Your task to perform on an android device: check out phone information Image 0: 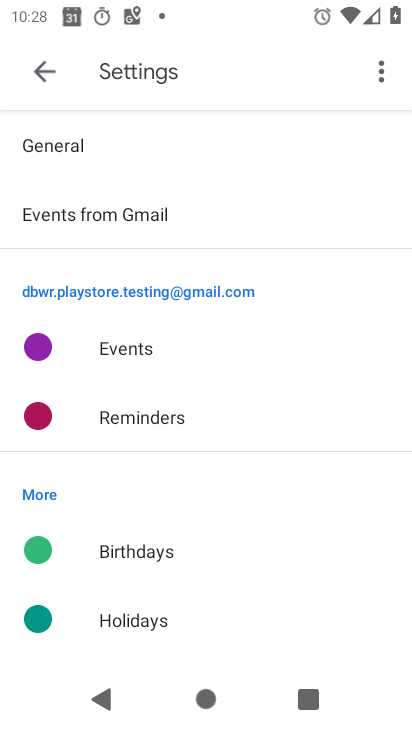
Step 0: drag from (204, 581) to (219, 7)
Your task to perform on an android device: check out phone information Image 1: 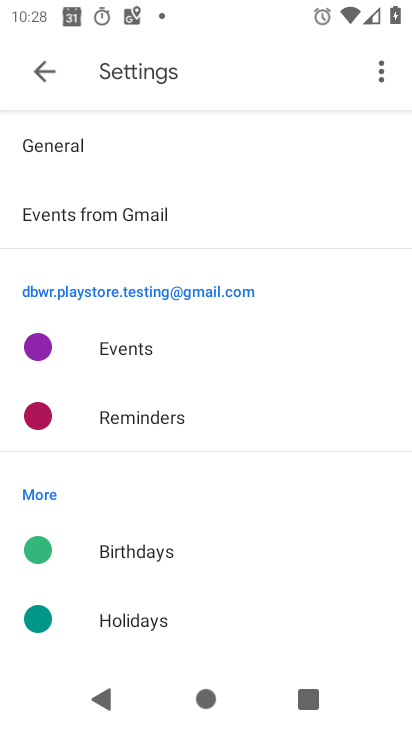
Step 1: drag from (237, 581) to (262, 45)
Your task to perform on an android device: check out phone information Image 2: 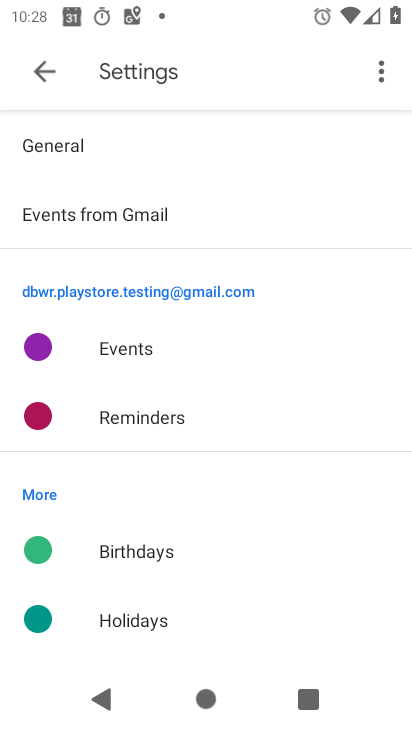
Step 2: press home button
Your task to perform on an android device: check out phone information Image 3: 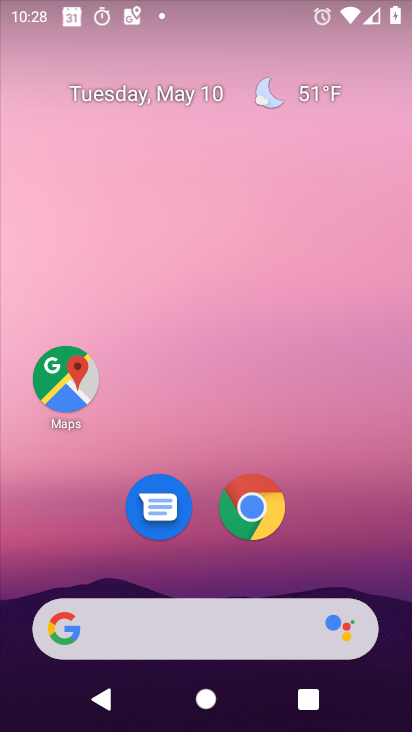
Step 3: drag from (236, 572) to (241, 142)
Your task to perform on an android device: check out phone information Image 4: 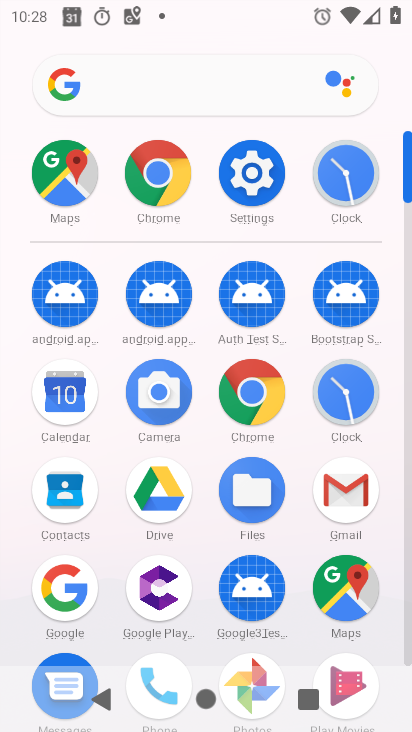
Step 4: drag from (252, 618) to (223, 165)
Your task to perform on an android device: check out phone information Image 5: 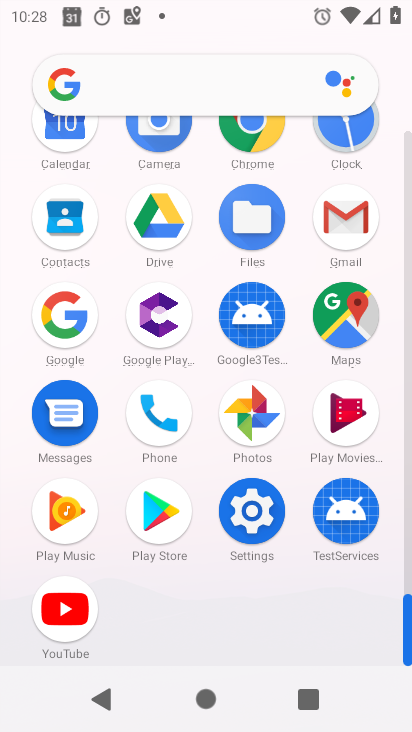
Step 5: click (258, 527)
Your task to perform on an android device: check out phone information Image 6: 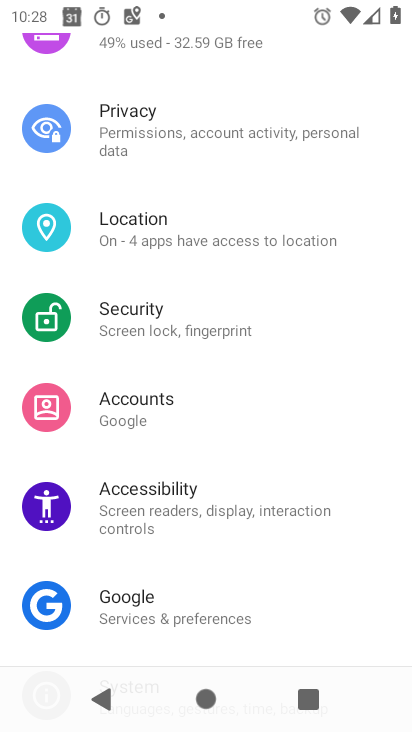
Step 6: drag from (232, 586) to (225, 128)
Your task to perform on an android device: check out phone information Image 7: 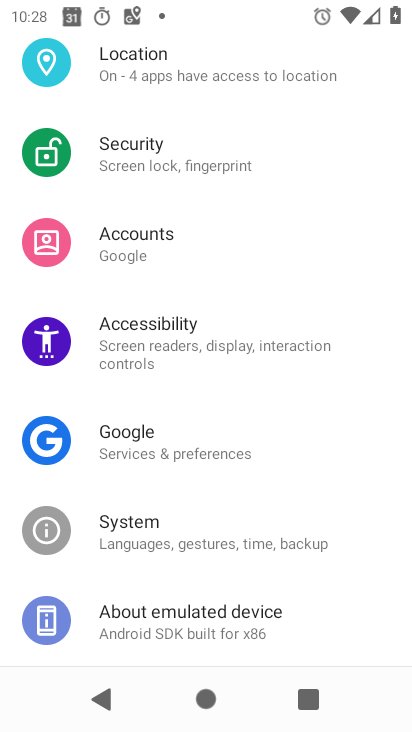
Step 7: click (141, 622)
Your task to perform on an android device: check out phone information Image 8: 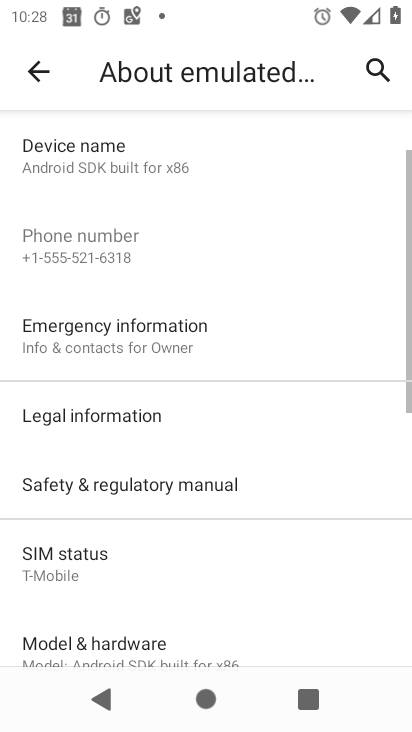
Step 8: task complete